Your task to perform on an android device: make emails show in primary in the gmail app Image 0: 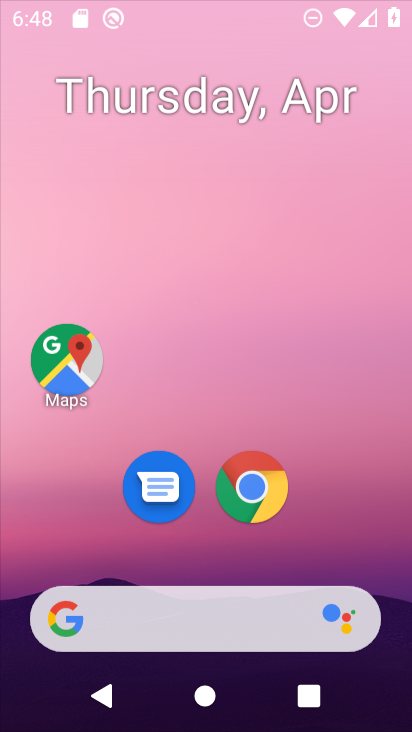
Step 0: drag from (317, 548) to (322, 409)
Your task to perform on an android device: make emails show in primary in the gmail app Image 1: 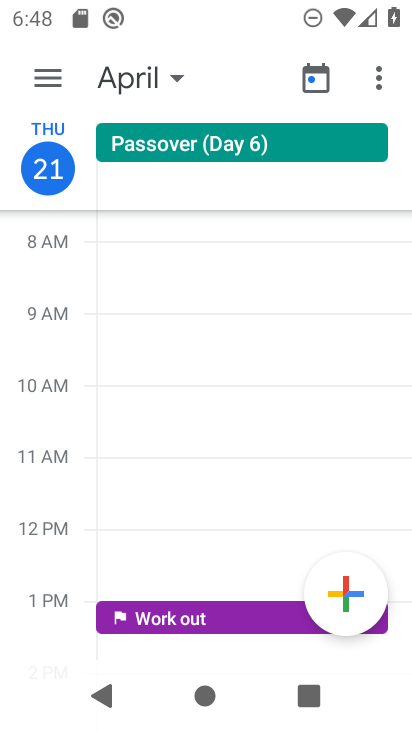
Step 1: drag from (139, 311) to (35, 446)
Your task to perform on an android device: make emails show in primary in the gmail app Image 2: 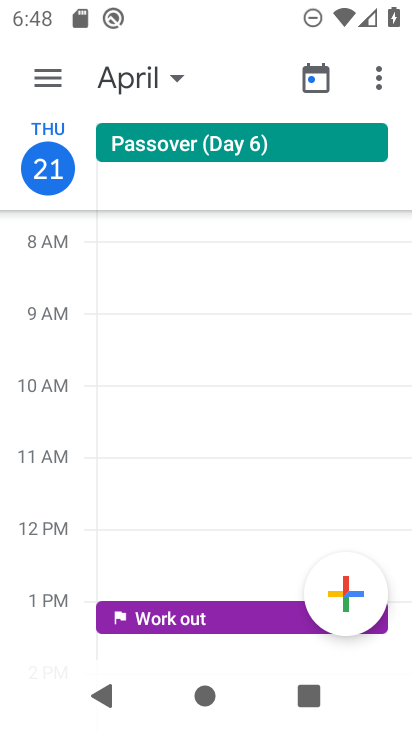
Step 2: press home button
Your task to perform on an android device: make emails show in primary in the gmail app Image 3: 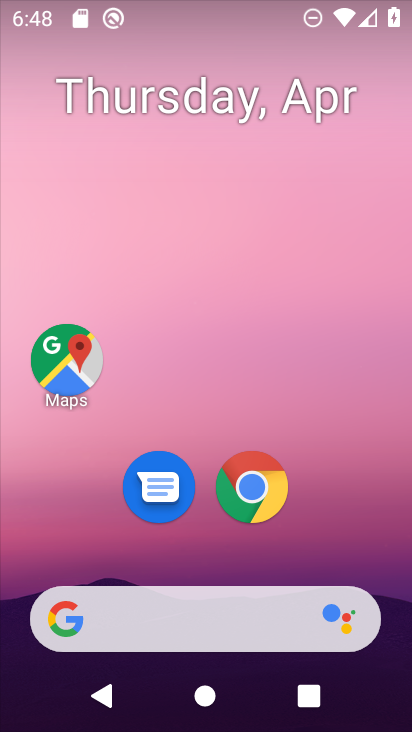
Step 3: drag from (388, 561) to (234, 95)
Your task to perform on an android device: make emails show in primary in the gmail app Image 4: 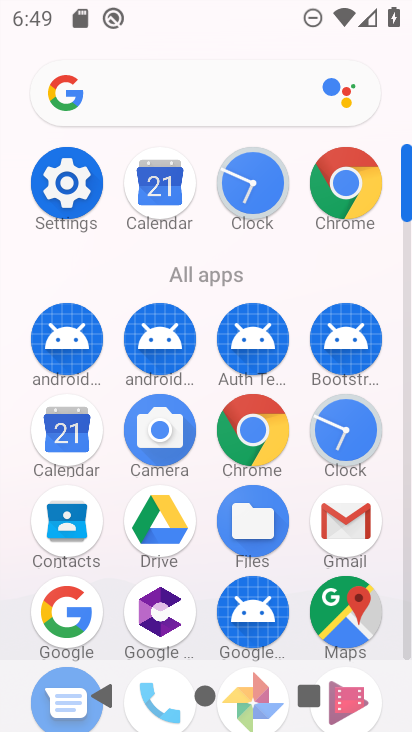
Step 4: click (364, 514)
Your task to perform on an android device: make emails show in primary in the gmail app Image 5: 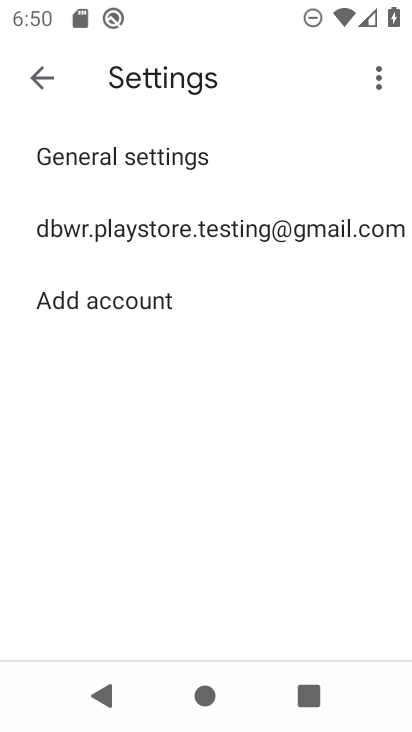
Step 5: click (42, 65)
Your task to perform on an android device: make emails show in primary in the gmail app Image 6: 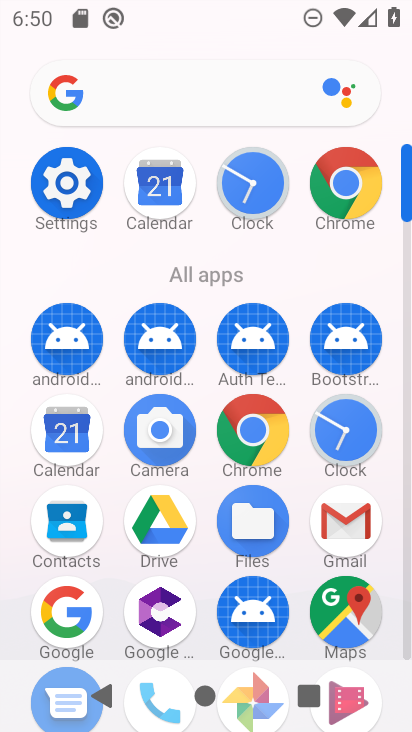
Step 6: click (322, 527)
Your task to perform on an android device: make emails show in primary in the gmail app Image 7: 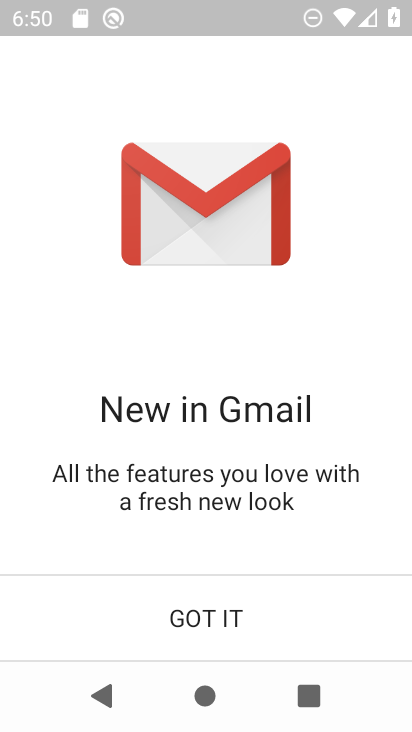
Step 7: click (238, 604)
Your task to perform on an android device: make emails show in primary in the gmail app Image 8: 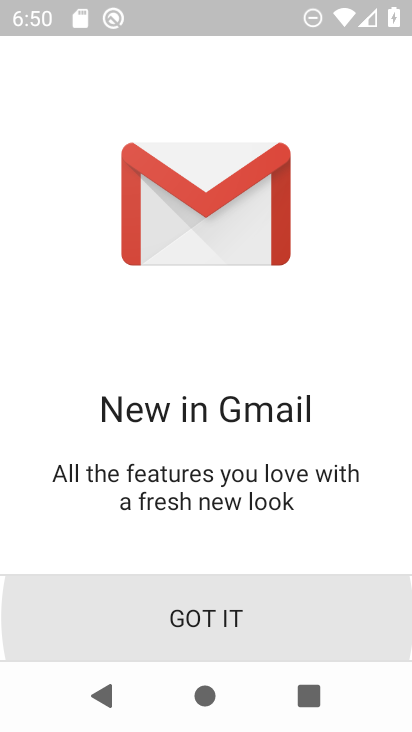
Step 8: click (238, 604)
Your task to perform on an android device: make emails show in primary in the gmail app Image 9: 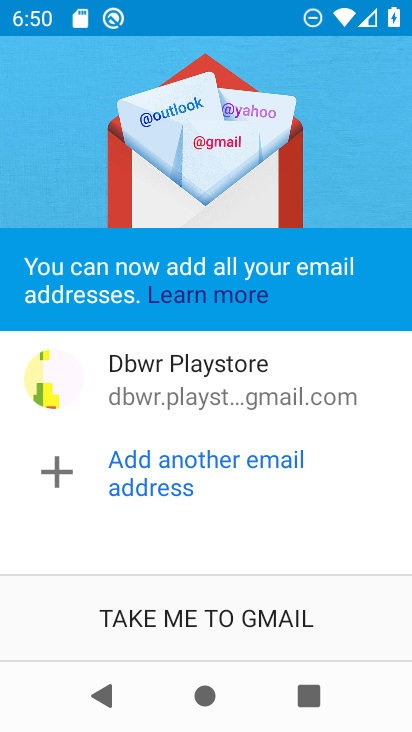
Step 9: click (238, 604)
Your task to perform on an android device: make emails show in primary in the gmail app Image 10: 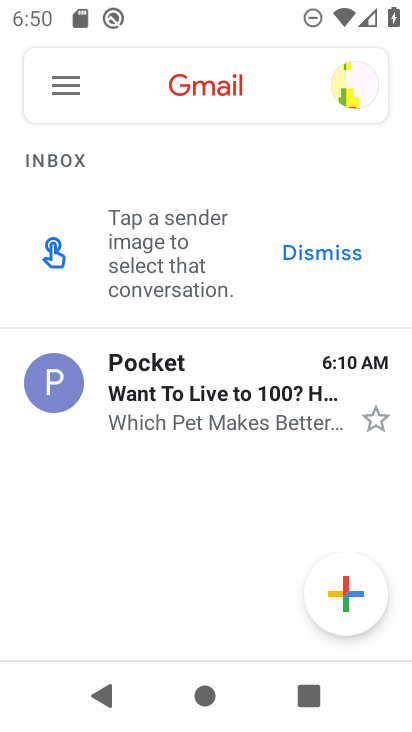
Step 10: click (65, 80)
Your task to perform on an android device: make emails show in primary in the gmail app Image 11: 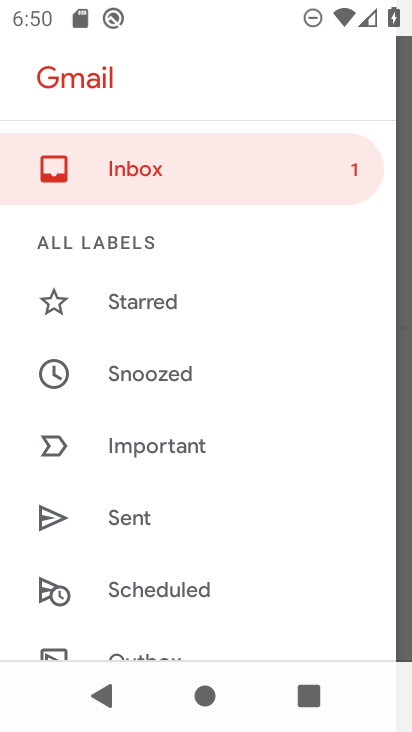
Step 11: task complete